Your task to perform on an android device: Go to CNN.com Image 0: 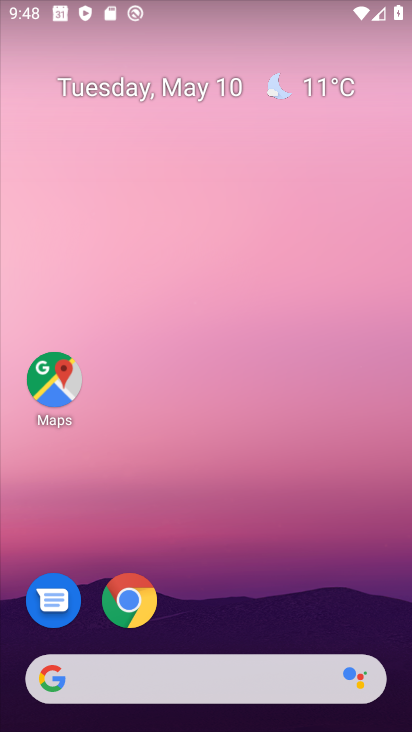
Step 0: drag from (320, 568) to (254, 137)
Your task to perform on an android device: Go to CNN.com Image 1: 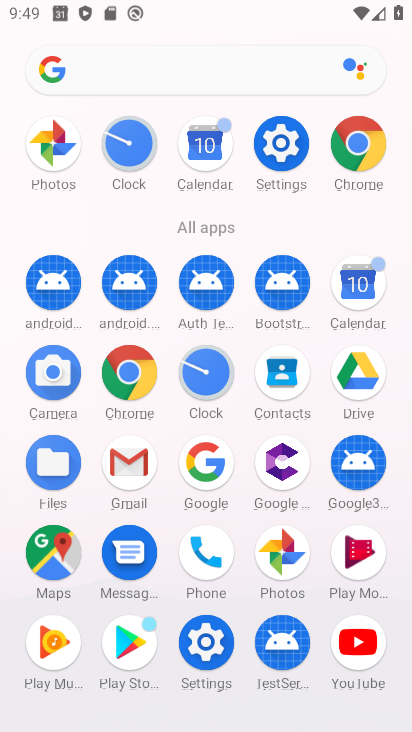
Step 1: click (128, 382)
Your task to perform on an android device: Go to CNN.com Image 2: 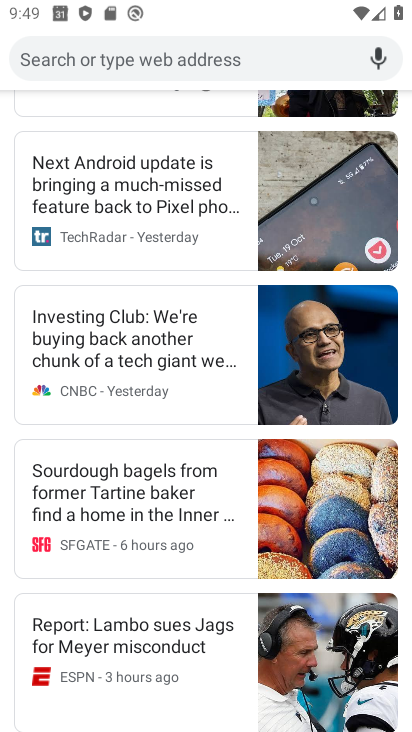
Step 2: click (226, 66)
Your task to perform on an android device: Go to CNN.com Image 3: 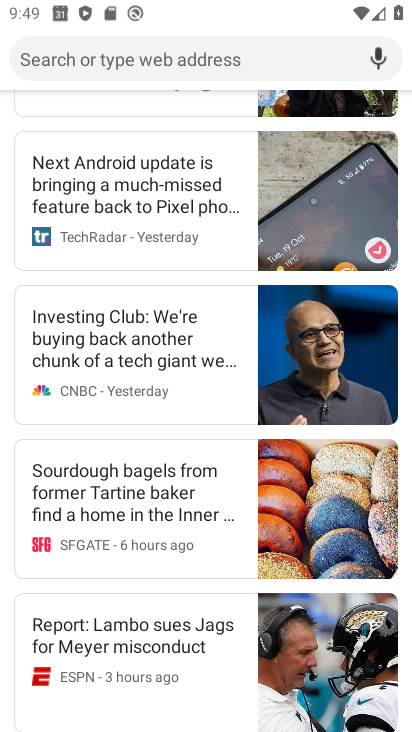
Step 3: click (171, 509)
Your task to perform on an android device: Go to CNN.com Image 4: 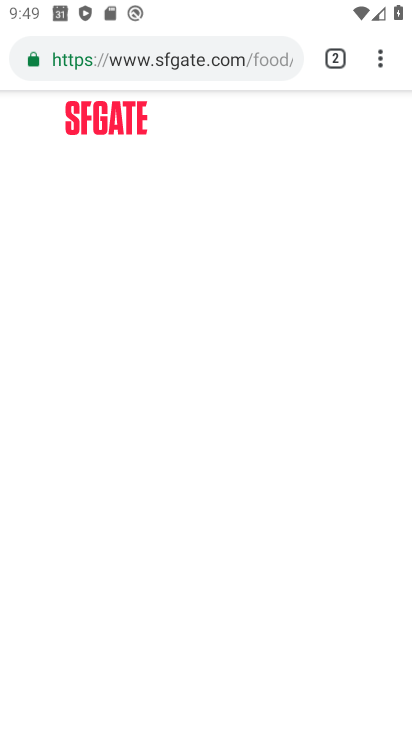
Step 4: click (210, 58)
Your task to perform on an android device: Go to CNN.com Image 5: 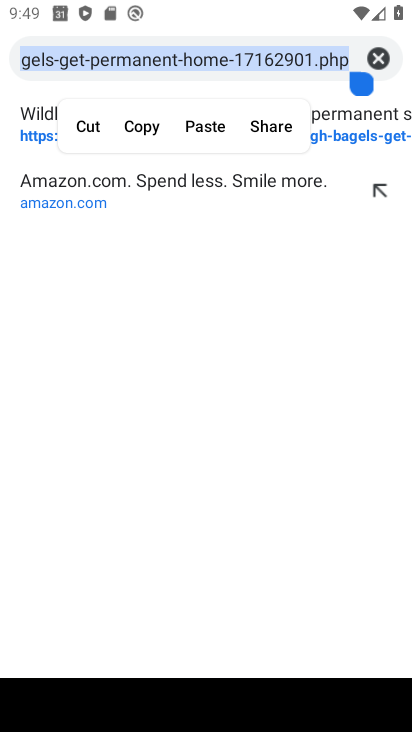
Step 5: click (375, 62)
Your task to perform on an android device: Go to CNN.com Image 6: 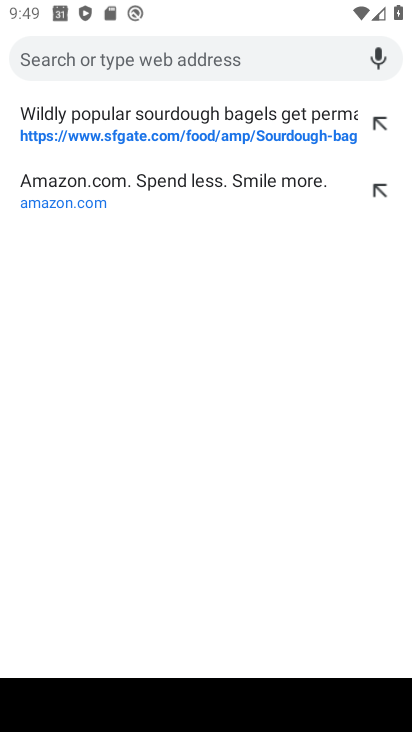
Step 6: type "cnn"
Your task to perform on an android device: Go to CNN.com Image 7: 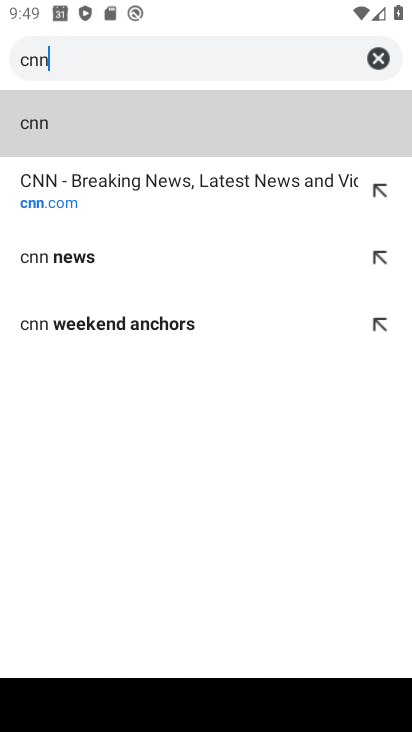
Step 7: click (85, 208)
Your task to perform on an android device: Go to CNN.com Image 8: 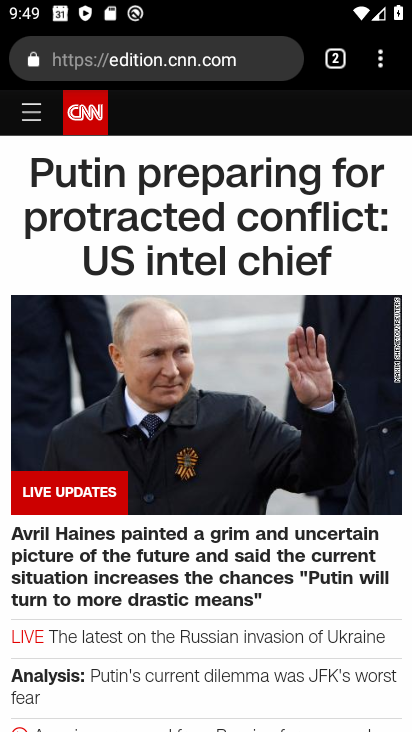
Step 8: task complete